Your task to perform on an android device: Search for Mexican restaurants on Maps Image 0: 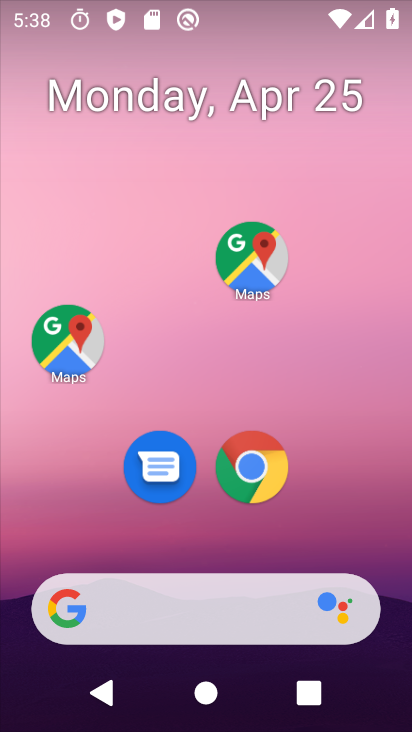
Step 0: drag from (289, 588) to (320, 7)
Your task to perform on an android device: Search for Mexican restaurants on Maps Image 1: 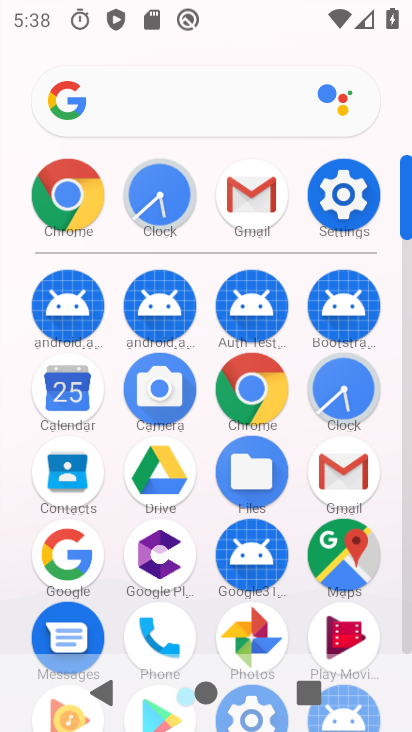
Step 1: click (342, 561)
Your task to perform on an android device: Search for Mexican restaurants on Maps Image 2: 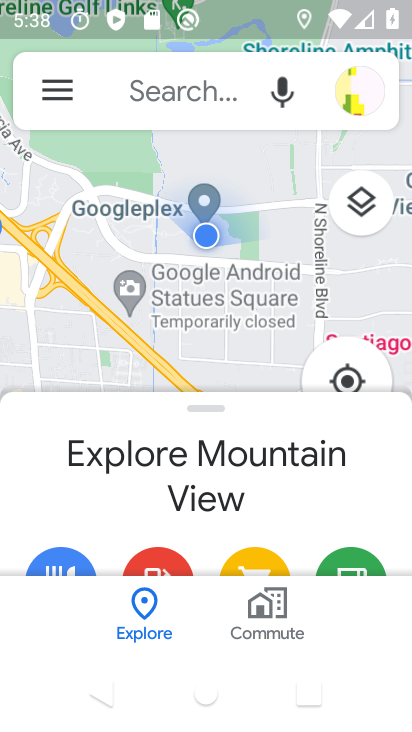
Step 2: click (211, 96)
Your task to perform on an android device: Search for Mexican restaurants on Maps Image 3: 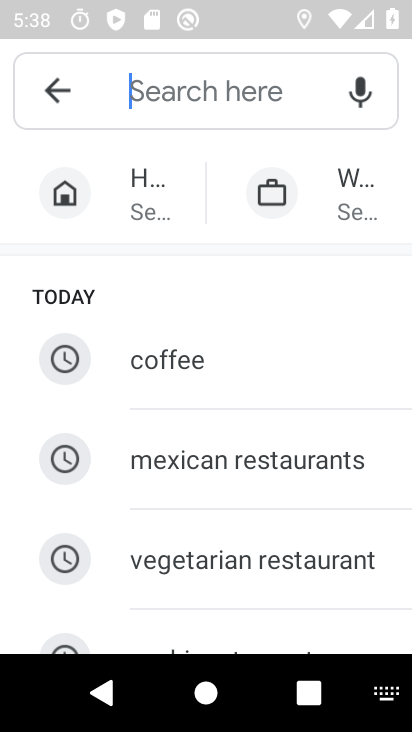
Step 3: click (291, 464)
Your task to perform on an android device: Search for Mexican restaurants on Maps Image 4: 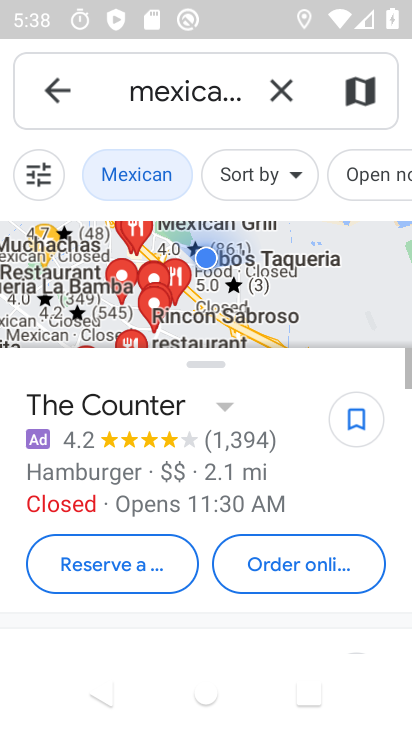
Step 4: task complete